Your task to perform on an android device: toggle pop-ups in chrome Image 0: 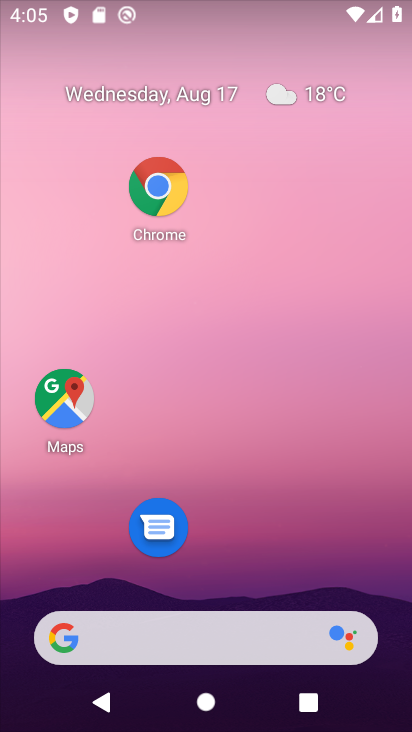
Step 0: click (182, 184)
Your task to perform on an android device: toggle pop-ups in chrome Image 1: 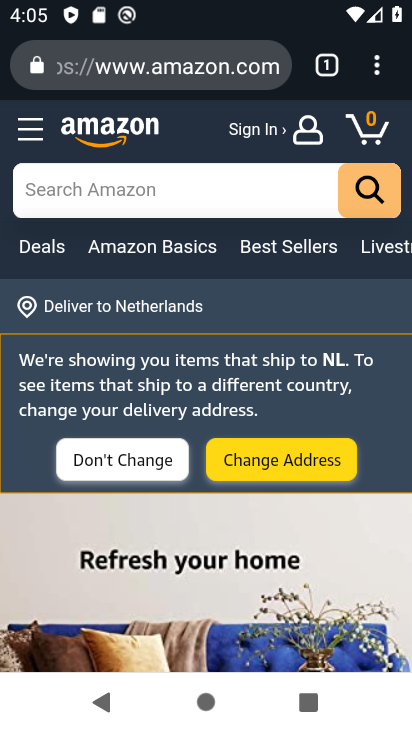
Step 1: click (387, 60)
Your task to perform on an android device: toggle pop-ups in chrome Image 2: 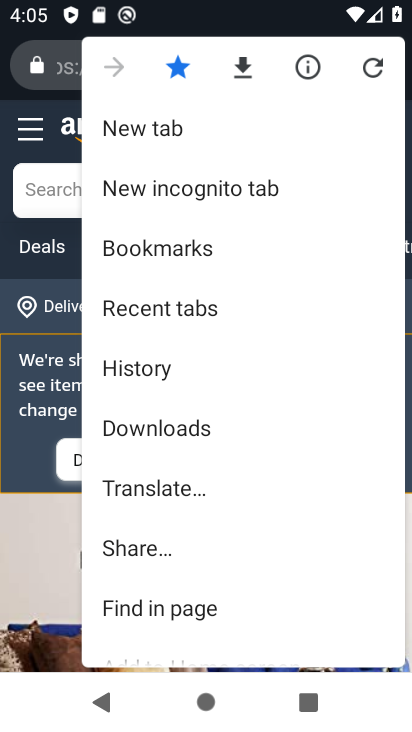
Step 2: drag from (153, 644) to (128, 143)
Your task to perform on an android device: toggle pop-ups in chrome Image 3: 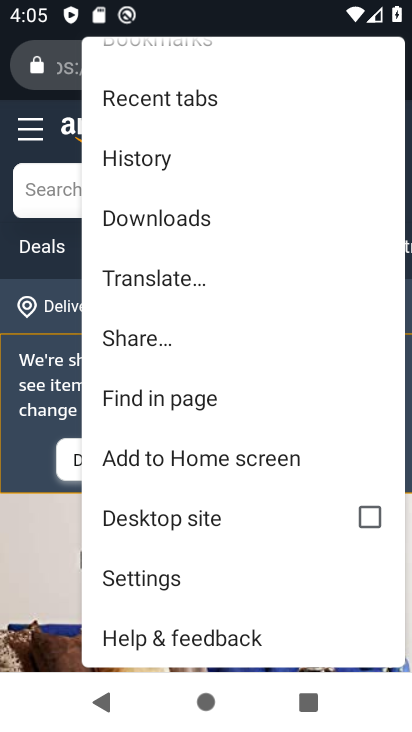
Step 3: click (163, 594)
Your task to perform on an android device: toggle pop-ups in chrome Image 4: 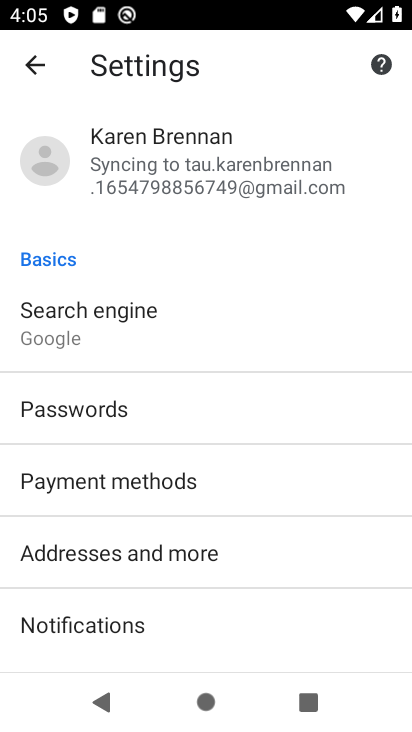
Step 4: drag from (163, 594) to (136, 105)
Your task to perform on an android device: toggle pop-ups in chrome Image 5: 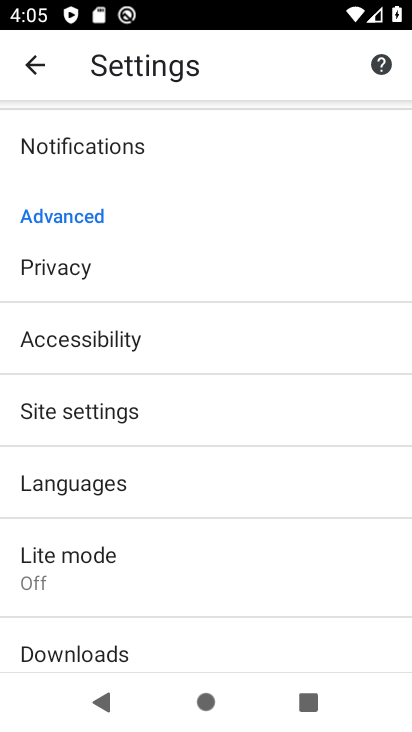
Step 5: click (168, 411)
Your task to perform on an android device: toggle pop-ups in chrome Image 6: 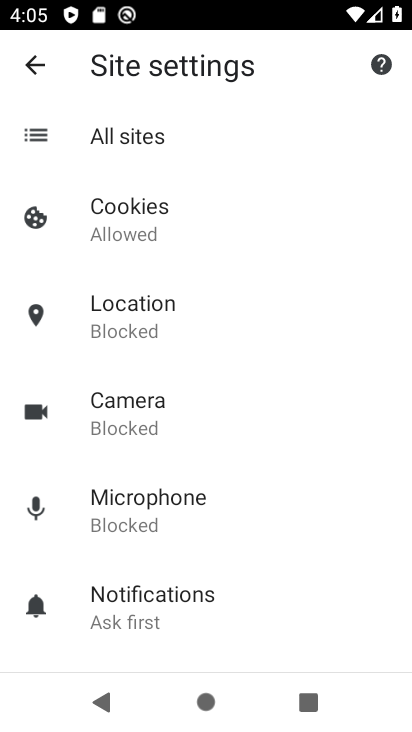
Step 6: drag from (297, 662) to (249, 228)
Your task to perform on an android device: toggle pop-ups in chrome Image 7: 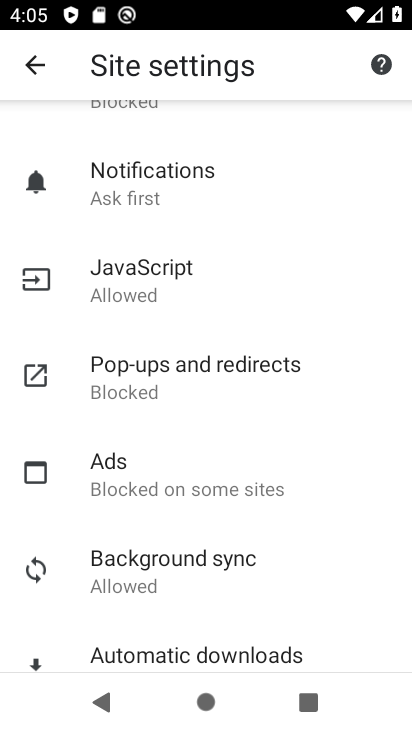
Step 7: click (198, 383)
Your task to perform on an android device: toggle pop-ups in chrome Image 8: 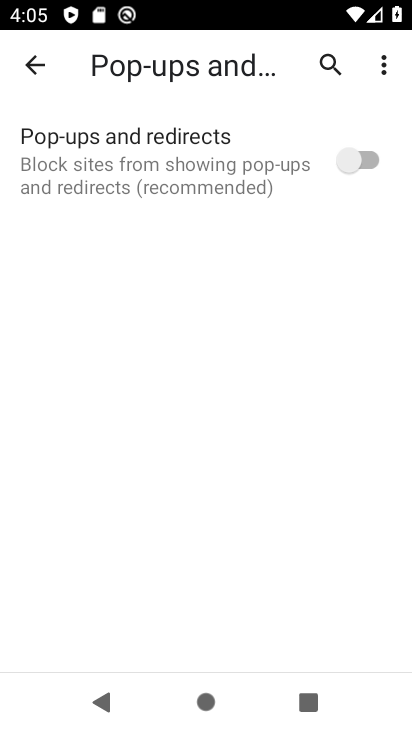
Step 8: click (363, 161)
Your task to perform on an android device: toggle pop-ups in chrome Image 9: 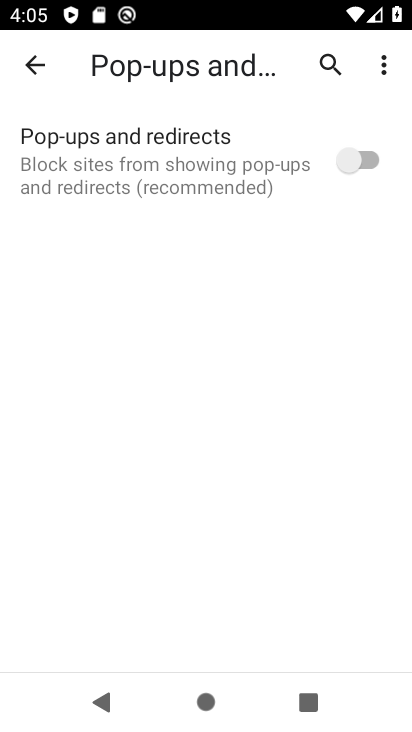
Step 9: click (363, 161)
Your task to perform on an android device: toggle pop-ups in chrome Image 10: 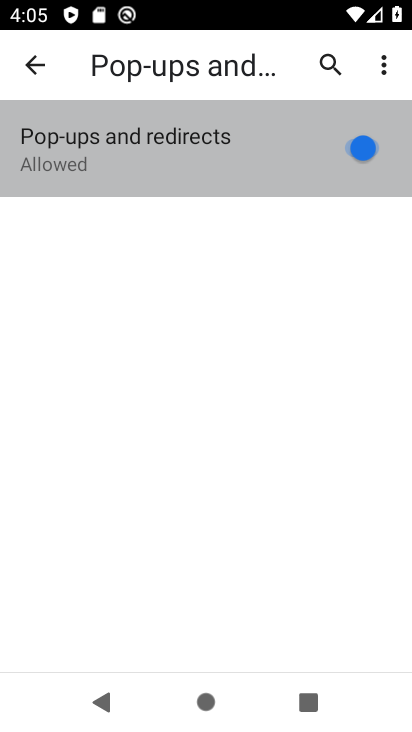
Step 10: click (363, 161)
Your task to perform on an android device: toggle pop-ups in chrome Image 11: 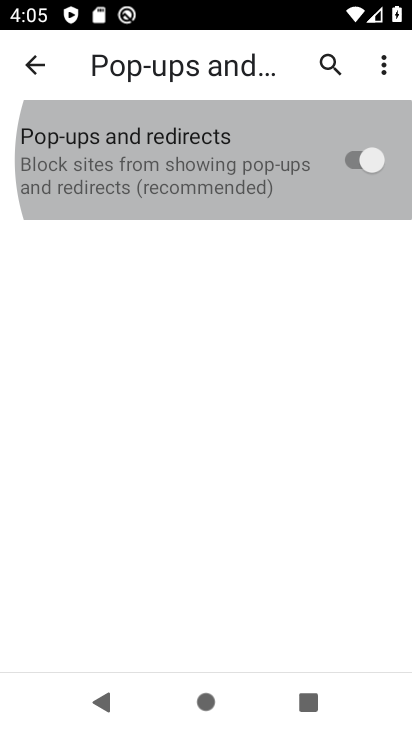
Step 11: click (363, 161)
Your task to perform on an android device: toggle pop-ups in chrome Image 12: 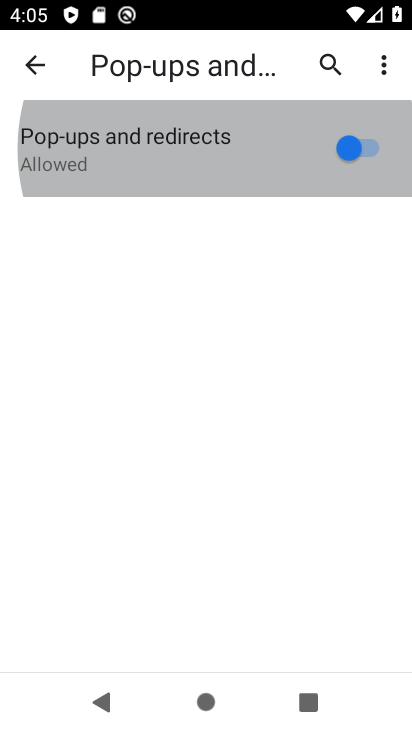
Step 12: click (363, 161)
Your task to perform on an android device: toggle pop-ups in chrome Image 13: 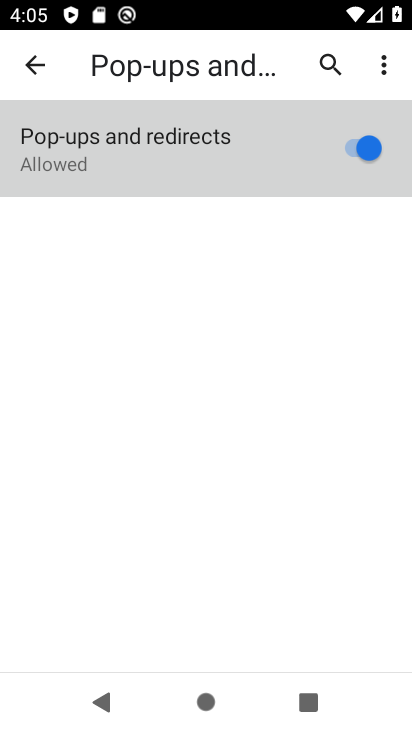
Step 13: click (363, 161)
Your task to perform on an android device: toggle pop-ups in chrome Image 14: 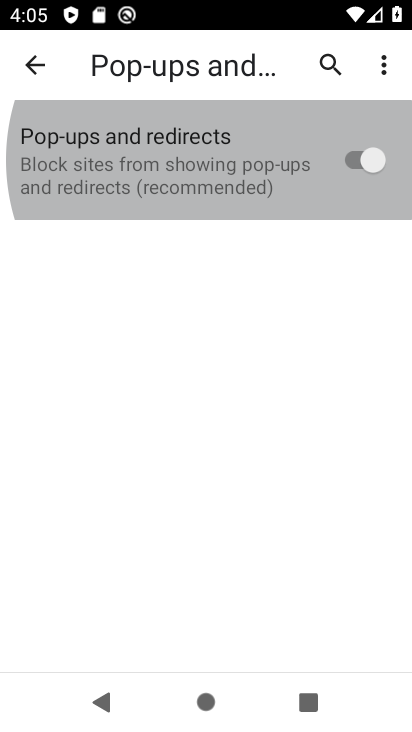
Step 14: click (363, 161)
Your task to perform on an android device: toggle pop-ups in chrome Image 15: 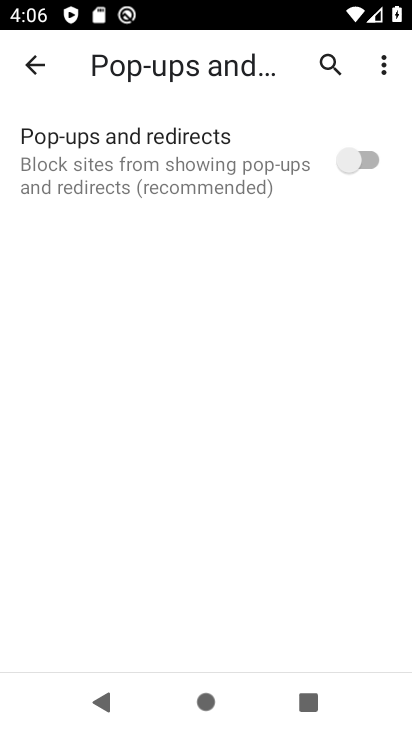
Step 15: task complete